Your task to perform on an android device: check the backup settings in the google photos Image 0: 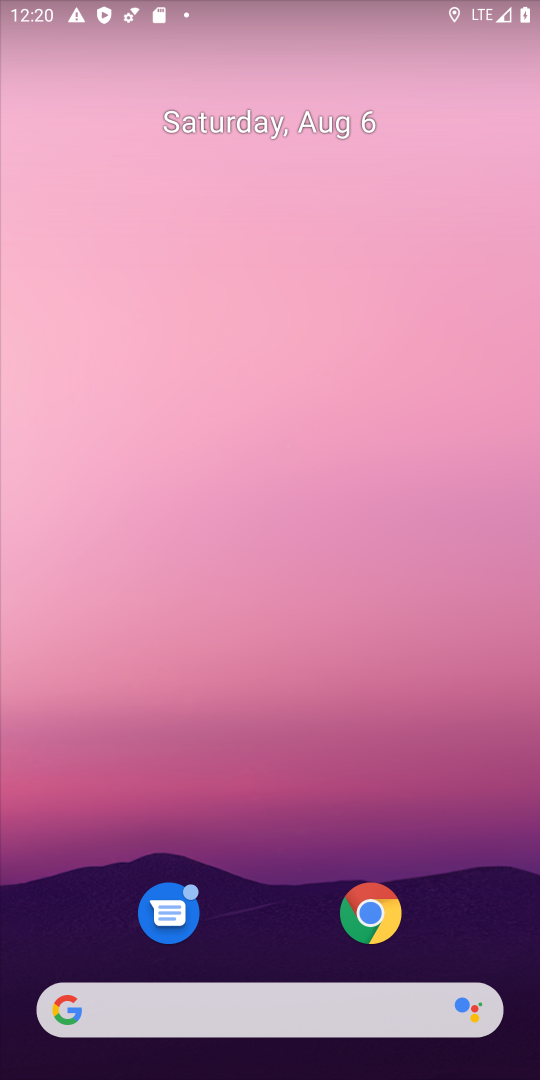
Step 0: press home button
Your task to perform on an android device: check the backup settings in the google photos Image 1: 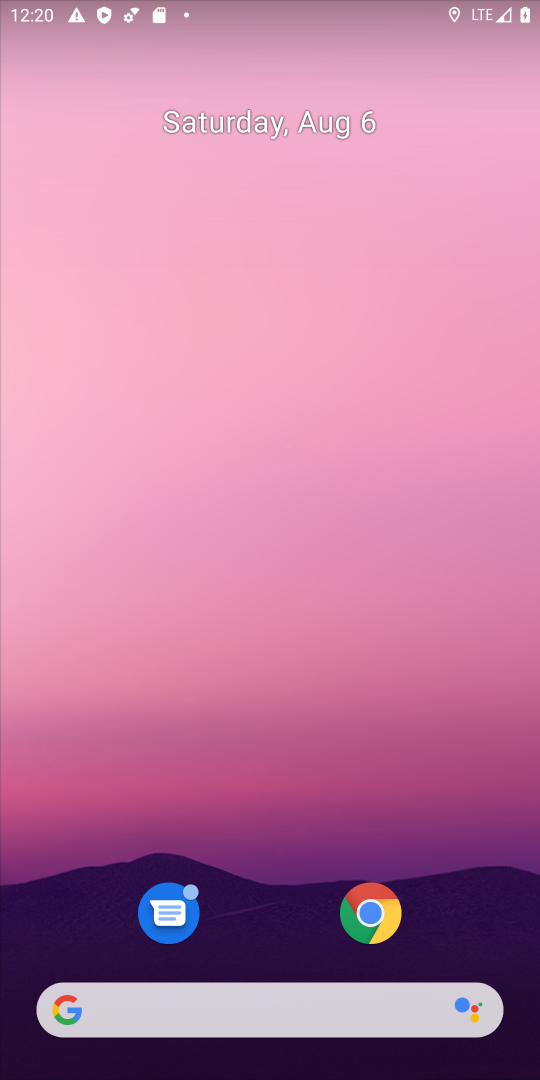
Step 1: drag from (472, 885) to (521, 341)
Your task to perform on an android device: check the backup settings in the google photos Image 2: 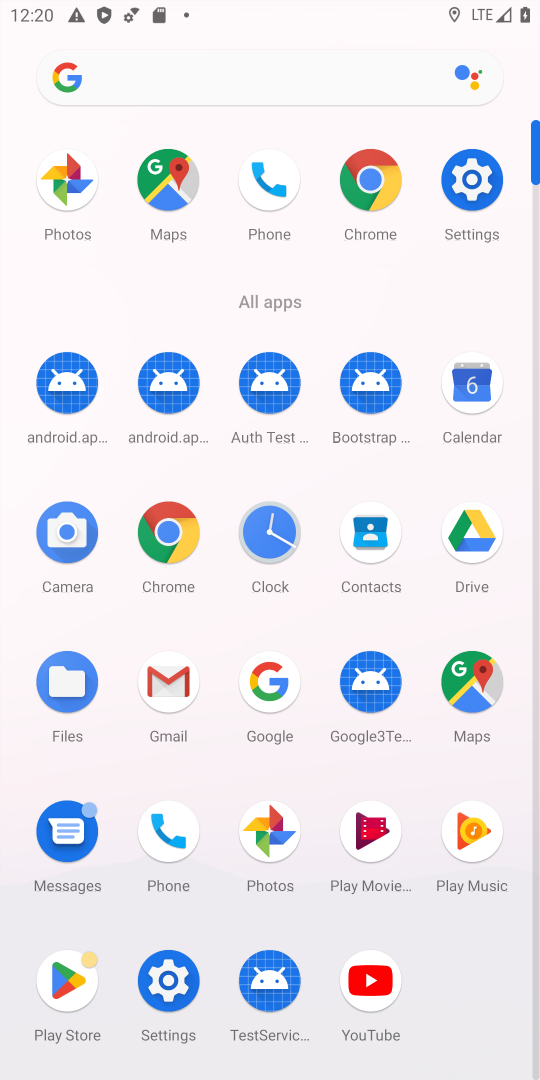
Step 2: click (250, 834)
Your task to perform on an android device: check the backup settings in the google photos Image 3: 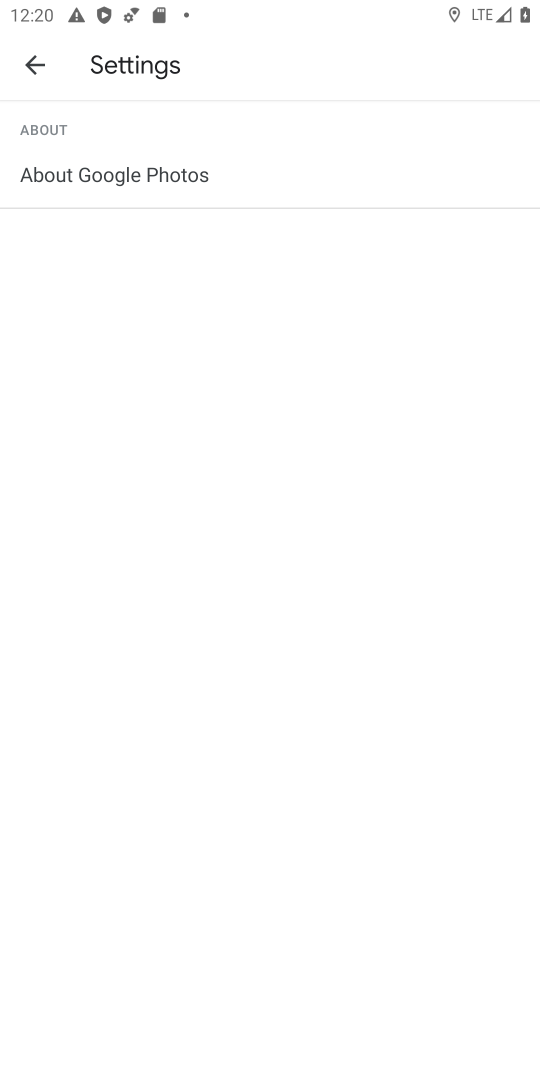
Step 3: press back button
Your task to perform on an android device: check the backup settings in the google photos Image 4: 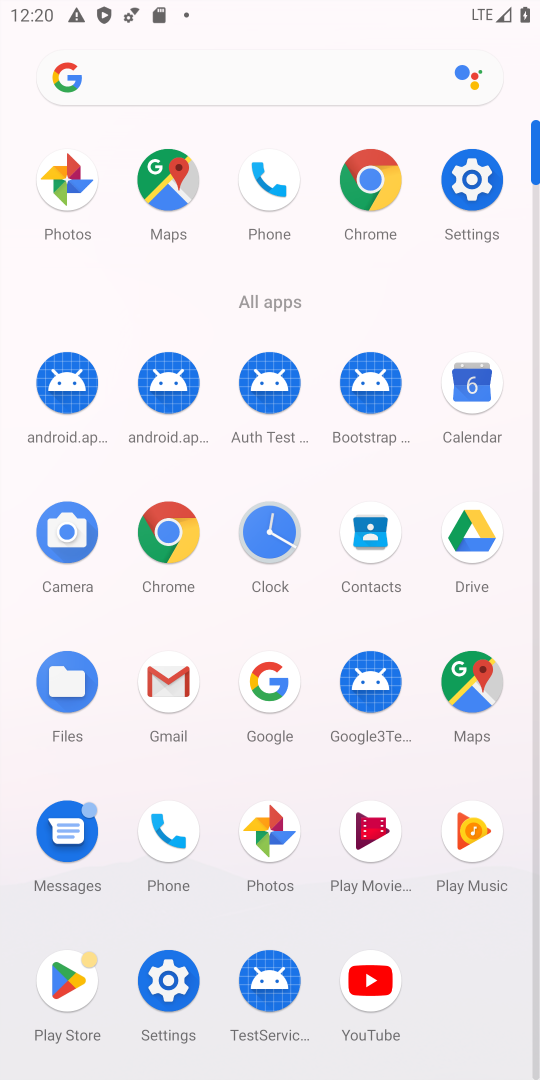
Step 4: click (270, 817)
Your task to perform on an android device: check the backup settings in the google photos Image 5: 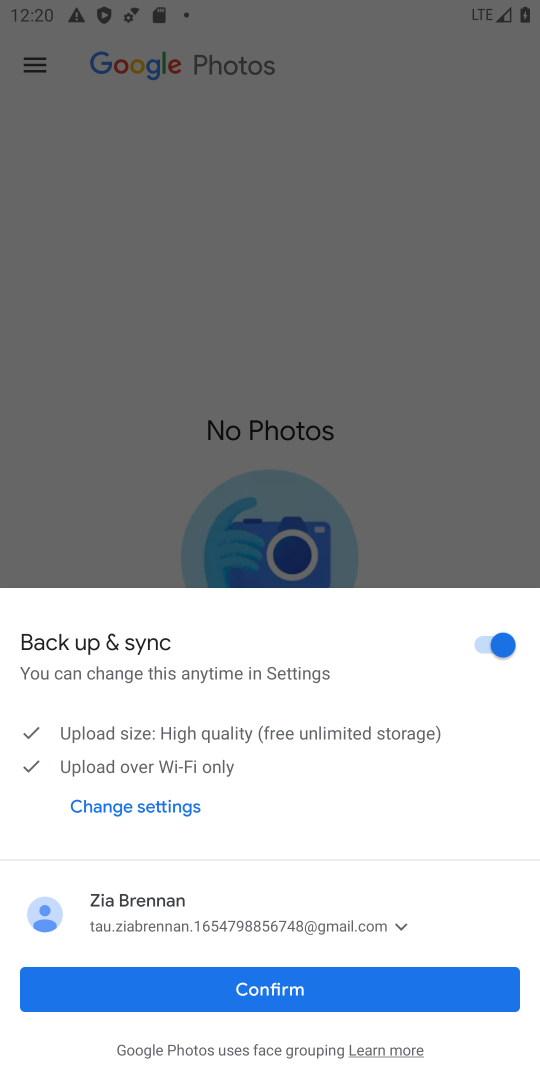
Step 5: click (441, 988)
Your task to perform on an android device: check the backup settings in the google photos Image 6: 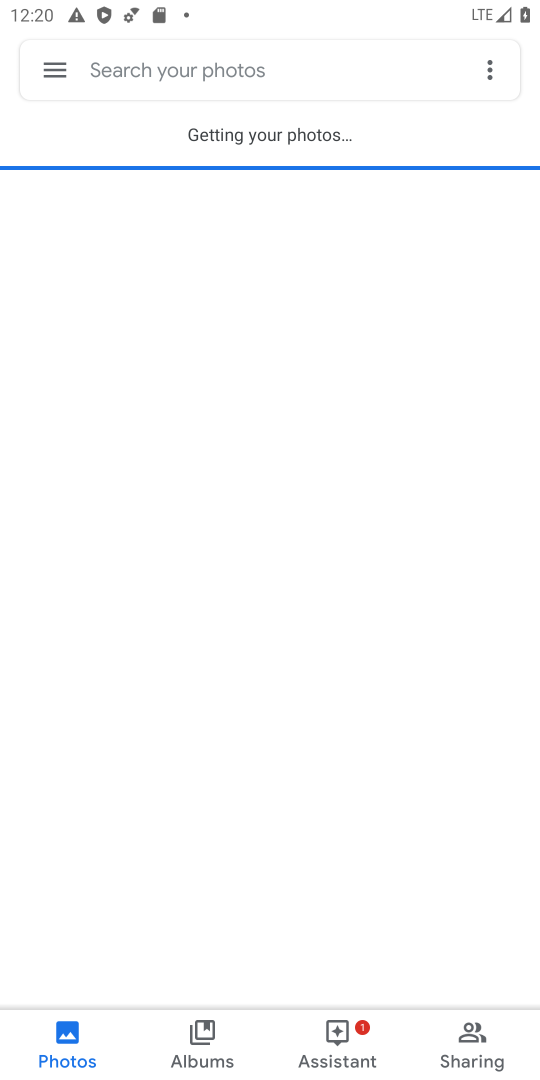
Step 6: click (45, 69)
Your task to perform on an android device: check the backup settings in the google photos Image 7: 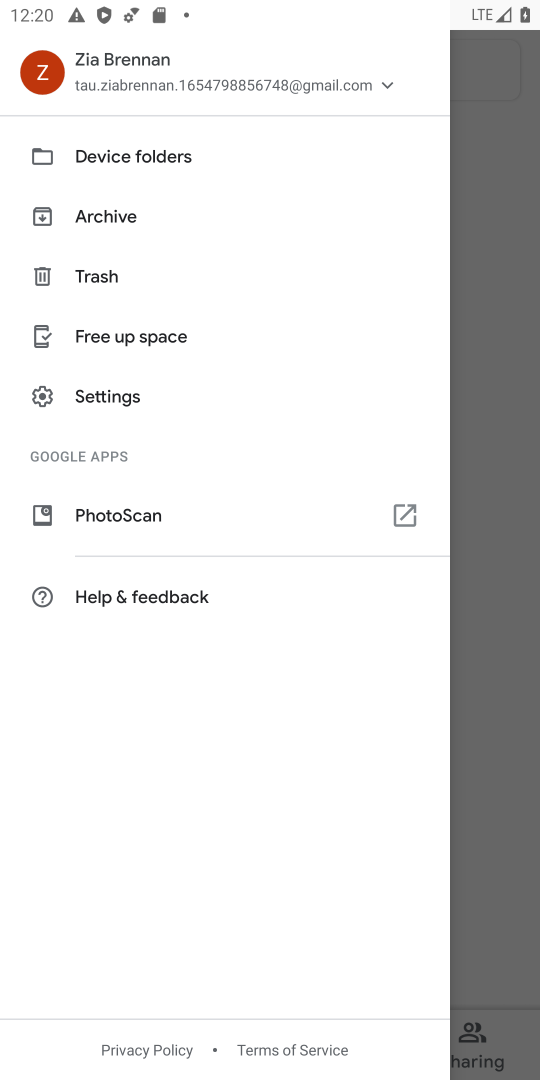
Step 7: click (129, 392)
Your task to perform on an android device: check the backup settings in the google photos Image 8: 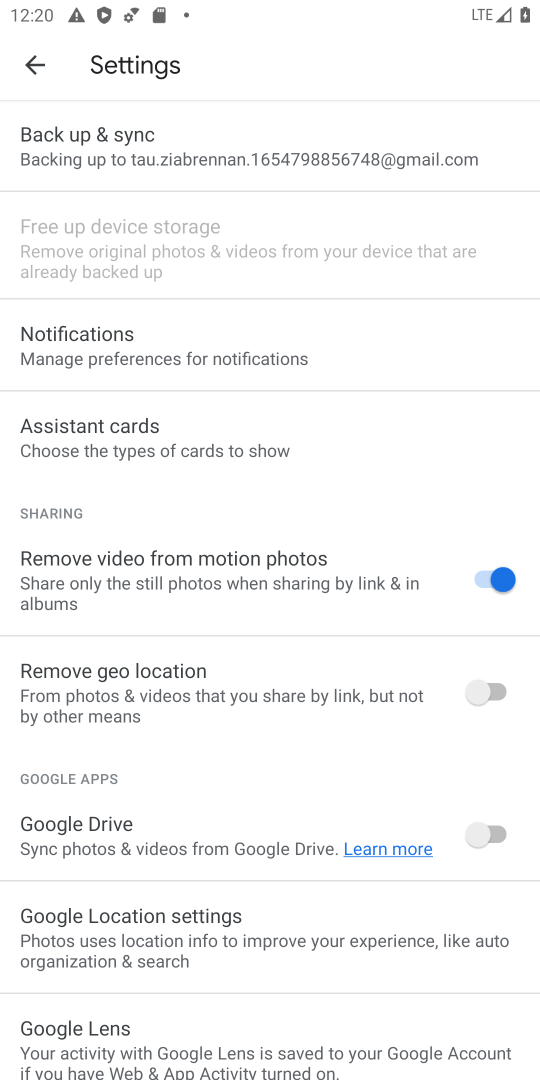
Step 8: click (191, 142)
Your task to perform on an android device: check the backup settings in the google photos Image 9: 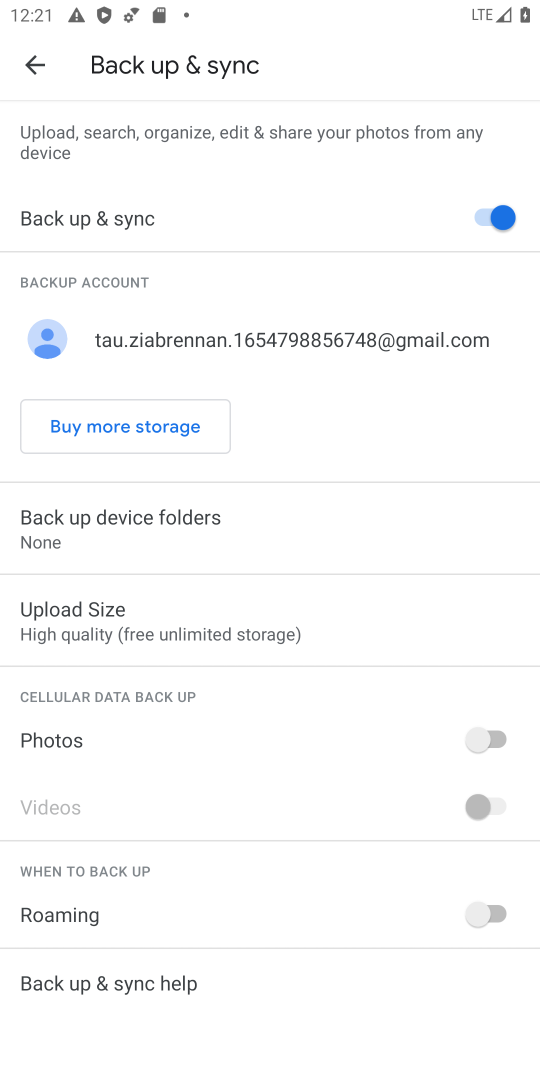
Step 9: task complete